Your task to perform on an android device: Find coffee shops on Maps Image 0: 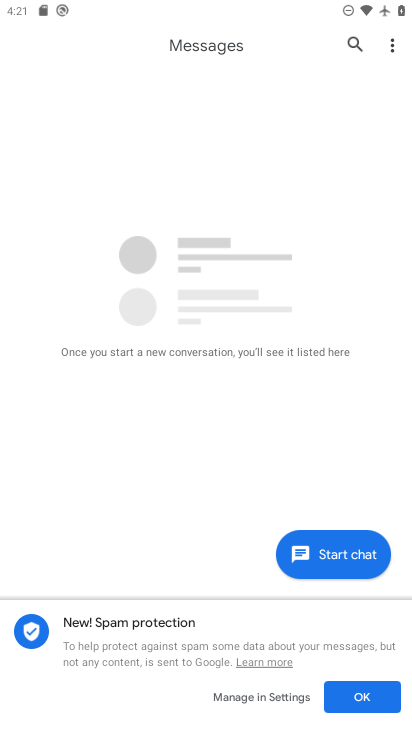
Step 0: press home button
Your task to perform on an android device: Find coffee shops on Maps Image 1: 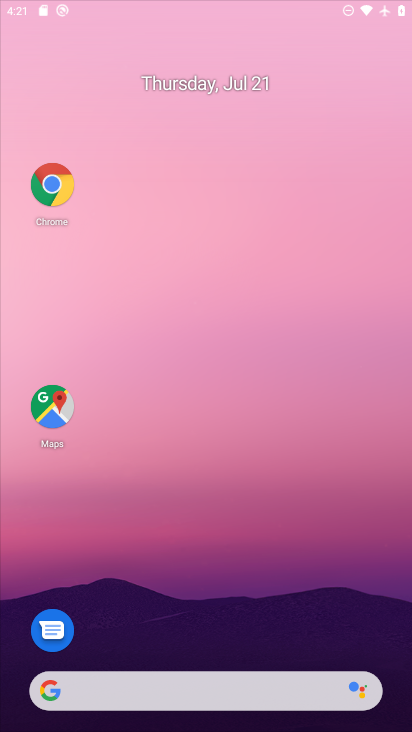
Step 1: press home button
Your task to perform on an android device: Find coffee shops on Maps Image 2: 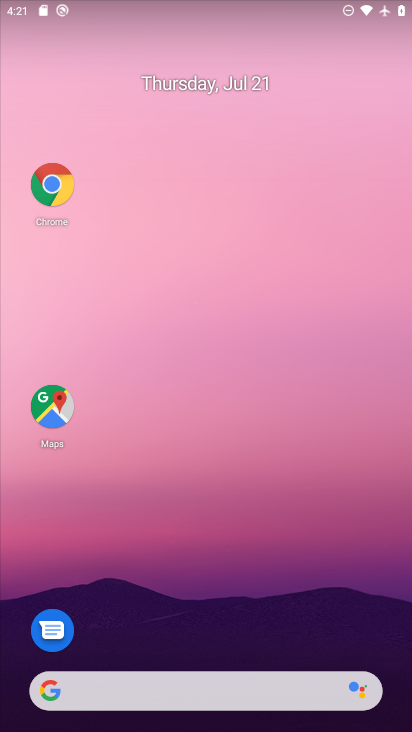
Step 2: drag from (173, 657) to (164, 58)
Your task to perform on an android device: Find coffee shops on Maps Image 3: 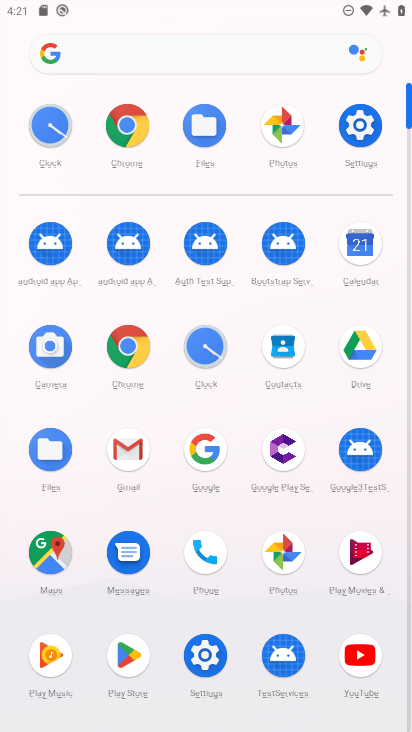
Step 3: click (60, 541)
Your task to perform on an android device: Find coffee shops on Maps Image 4: 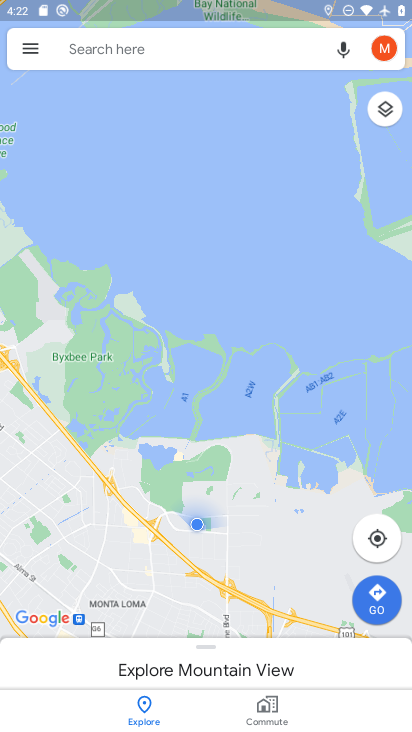
Step 4: click (161, 48)
Your task to perform on an android device: Find coffee shops on Maps Image 5: 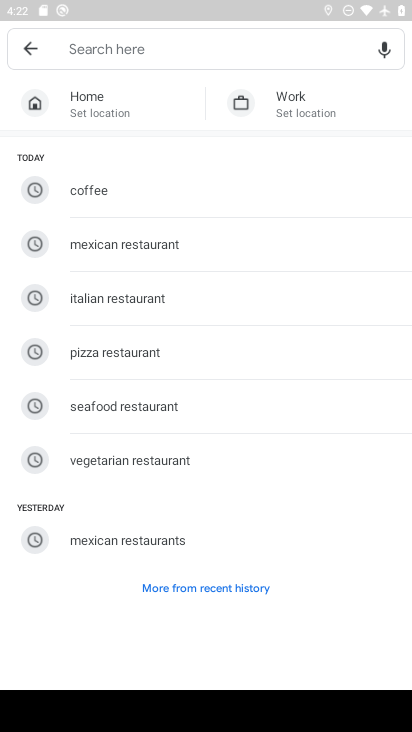
Step 5: click (75, 196)
Your task to perform on an android device: Find coffee shops on Maps Image 6: 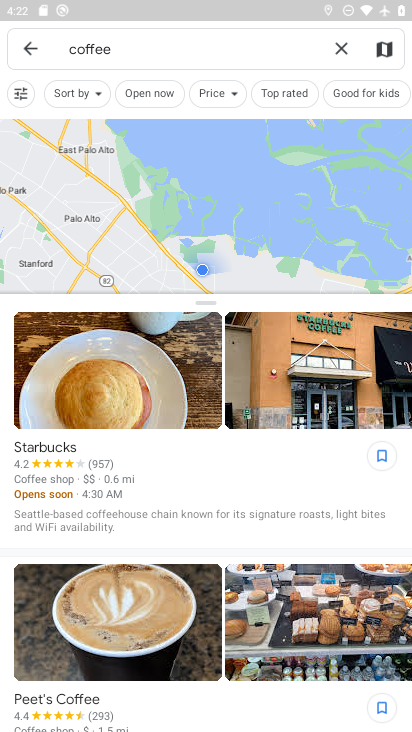
Step 6: task complete